Your task to perform on an android device: Open the map Image 0: 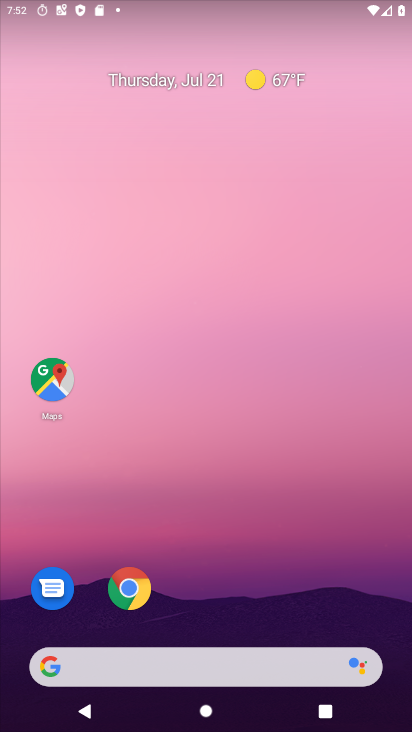
Step 0: click (52, 390)
Your task to perform on an android device: Open the map Image 1: 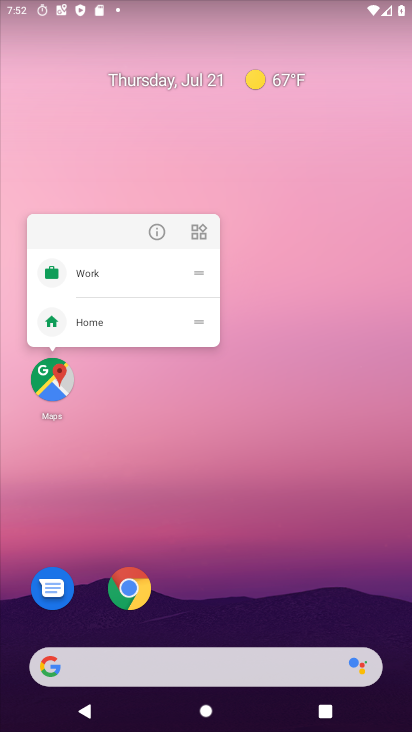
Step 1: click (52, 390)
Your task to perform on an android device: Open the map Image 2: 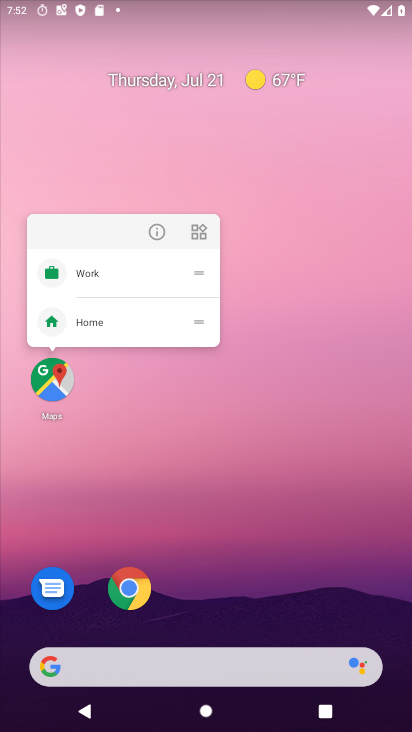
Step 2: click (47, 381)
Your task to perform on an android device: Open the map Image 3: 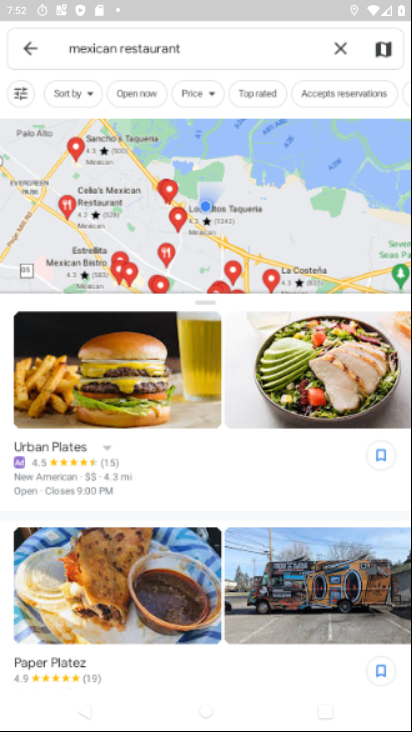
Step 3: click (24, 51)
Your task to perform on an android device: Open the map Image 4: 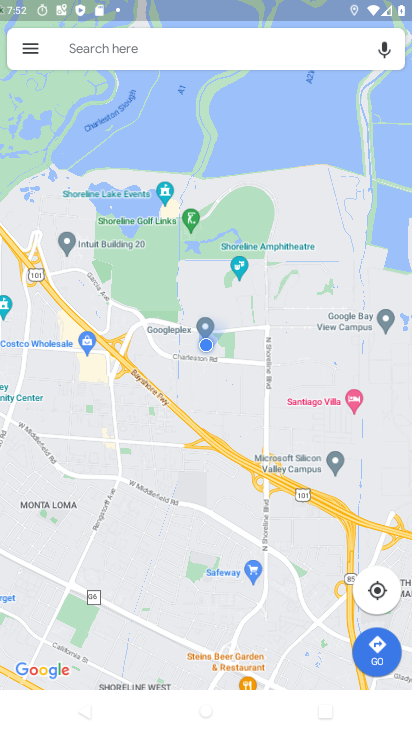
Step 4: task complete